Your task to perform on an android device: check battery use Image 0: 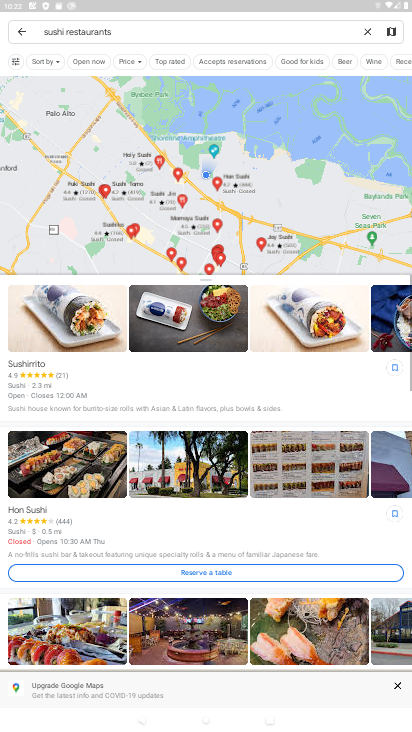
Step 0: drag from (277, 218) to (297, 20)
Your task to perform on an android device: check battery use Image 1: 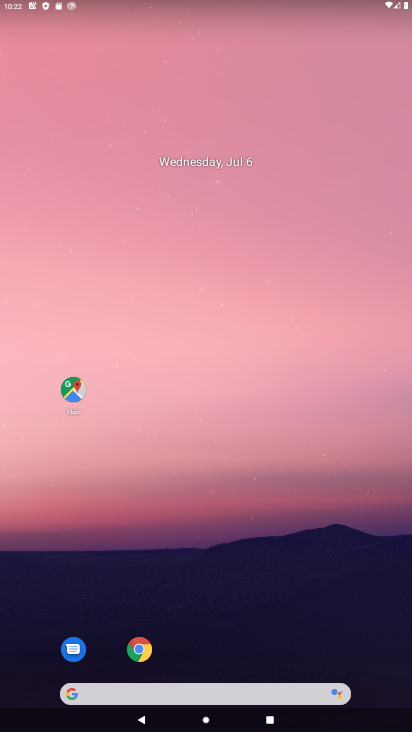
Step 1: drag from (307, 585) to (22, 119)
Your task to perform on an android device: check battery use Image 2: 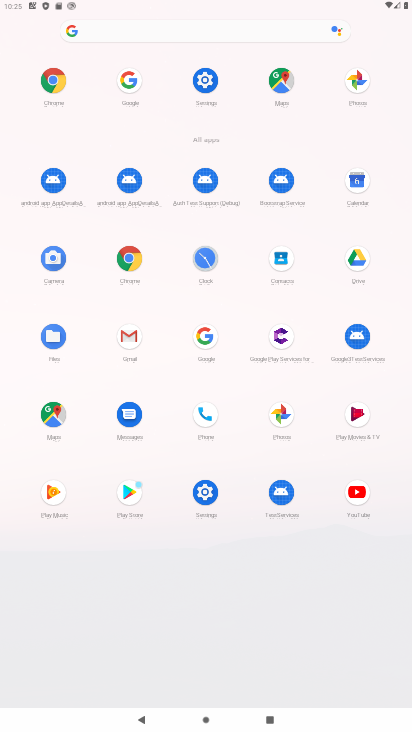
Step 2: click (203, 80)
Your task to perform on an android device: check battery use Image 3: 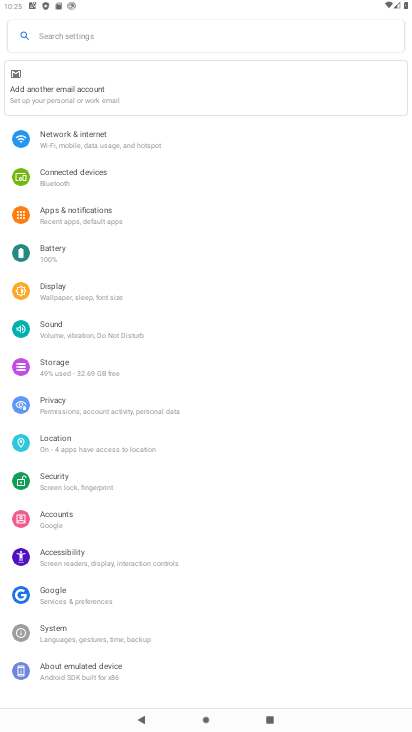
Step 3: click (43, 250)
Your task to perform on an android device: check battery use Image 4: 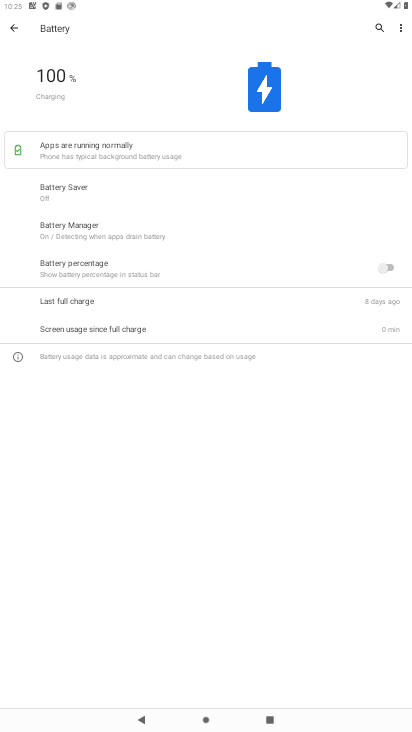
Step 4: task complete